Your task to perform on an android device: Open Google Image 0: 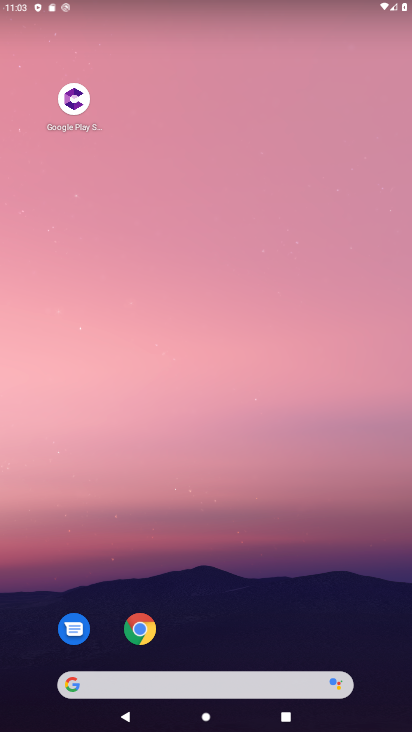
Step 0: drag from (363, 605) to (288, 27)
Your task to perform on an android device: Open Google Image 1: 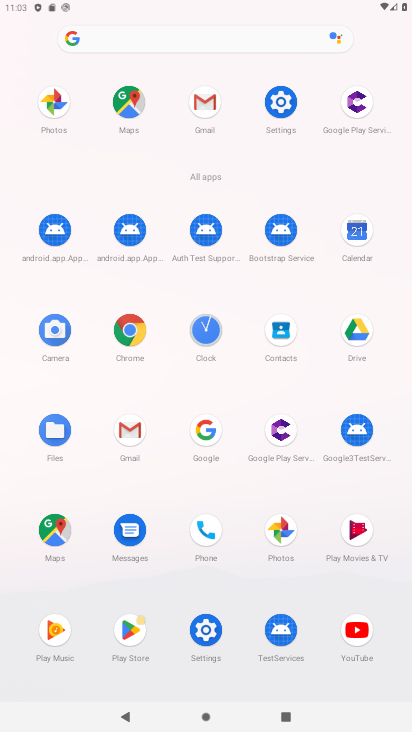
Step 1: click (206, 438)
Your task to perform on an android device: Open Google Image 2: 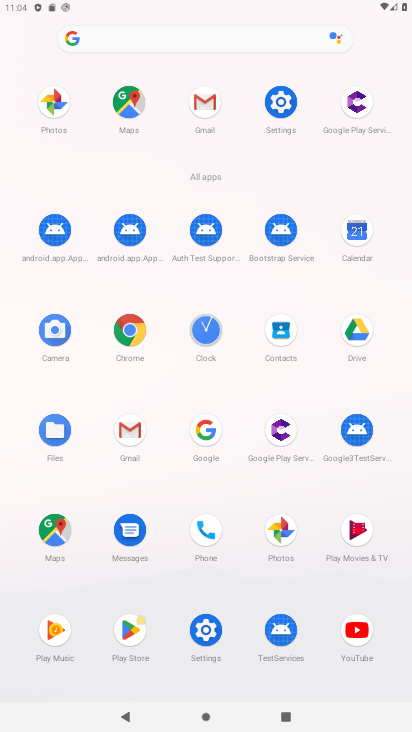
Step 2: click (210, 440)
Your task to perform on an android device: Open Google Image 3: 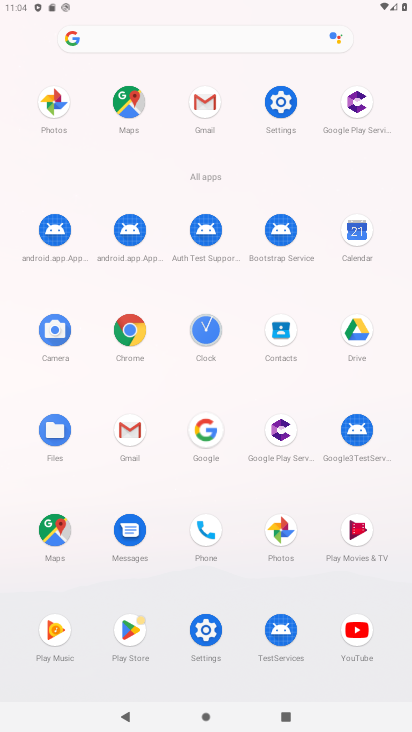
Step 3: click (204, 429)
Your task to perform on an android device: Open Google Image 4: 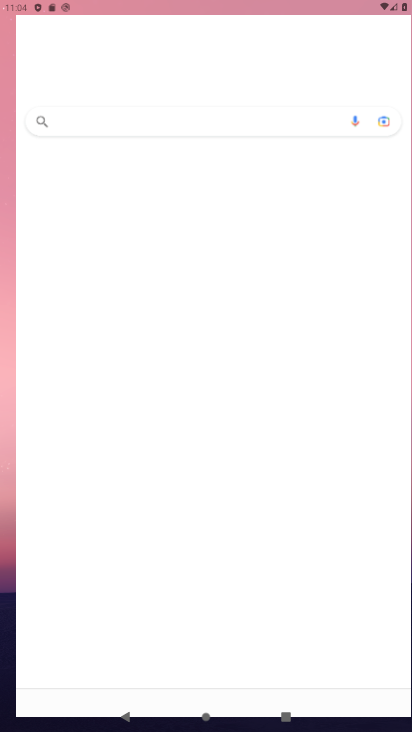
Step 4: click (210, 436)
Your task to perform on an android device: Open Google Image 5: 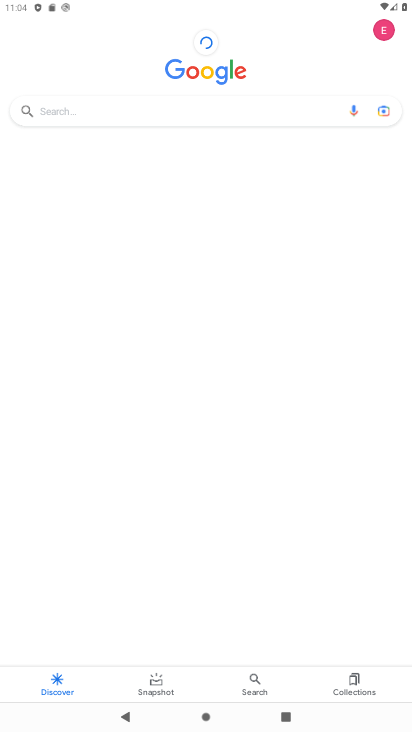
Step 5: task complete